Your task to perform on an android device: open app "Google Home" Image 0: 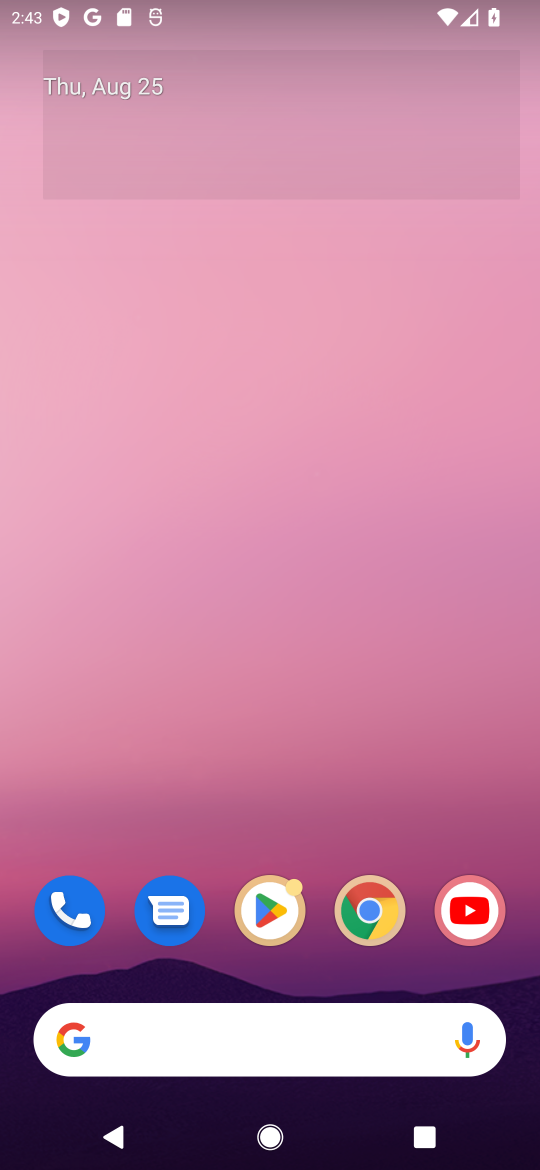
Step 0: drag from (159, 512) to (158, 82)
Your task to perform on an android device: open app "Google Home" Image 1: 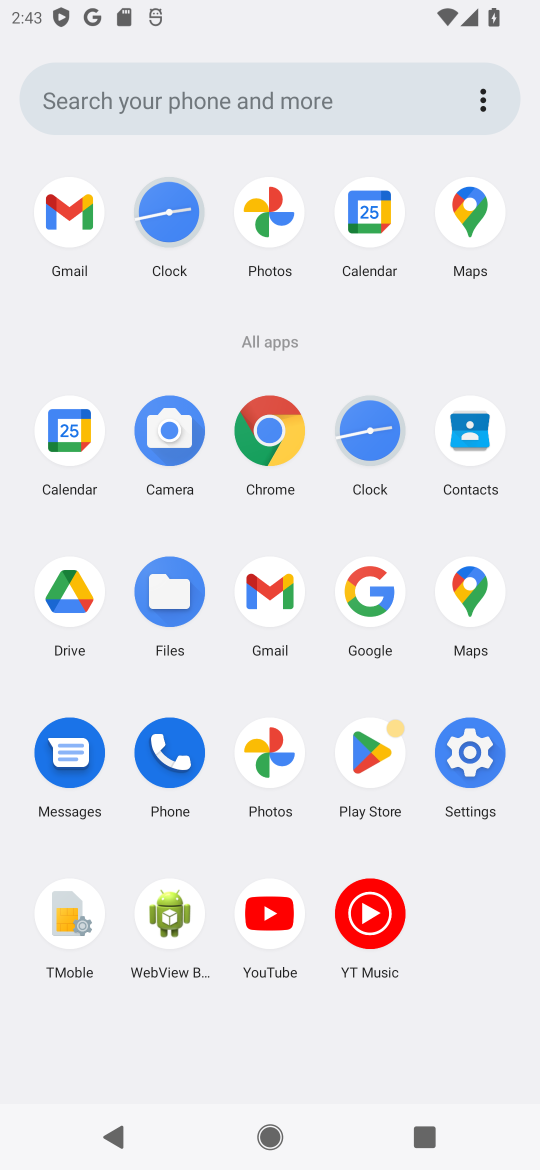
Step 1: click (383, 776)
Your task to perform on an android device: open app "Google Home" Image 2: 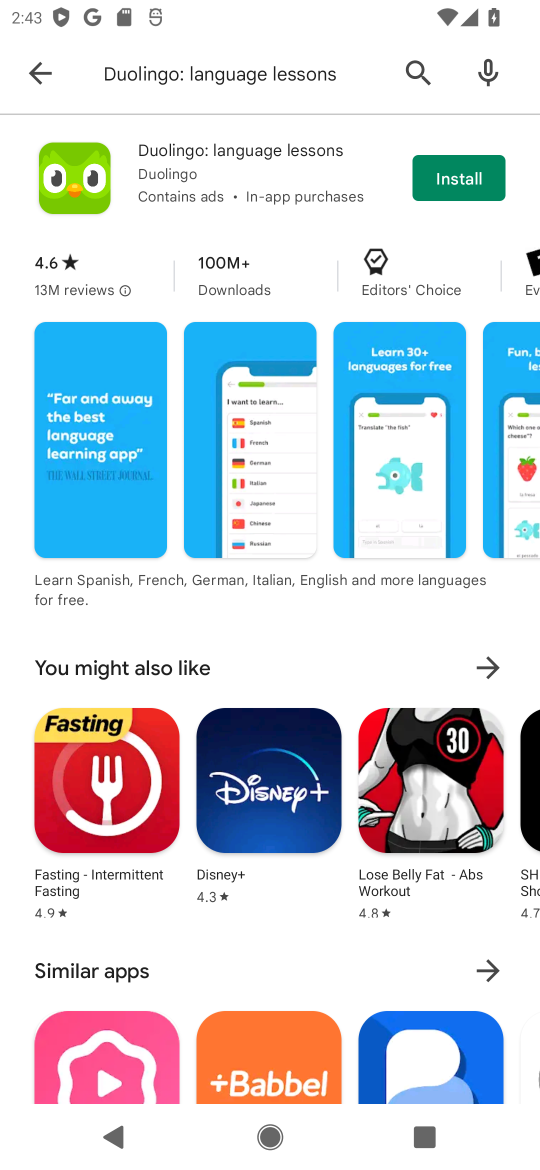
Step 2: press back button
Your task to perform on an android device: open app "Google Home" Image 3: 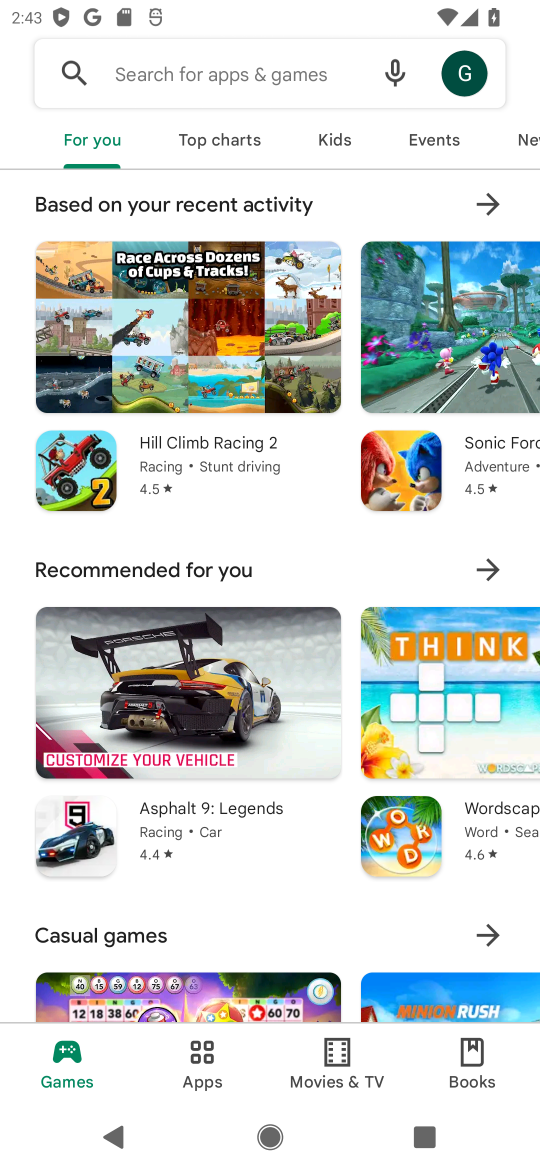
Step 3: click (138, 83)
Your task to perform on an android device: open app "Google Home" Image 4: 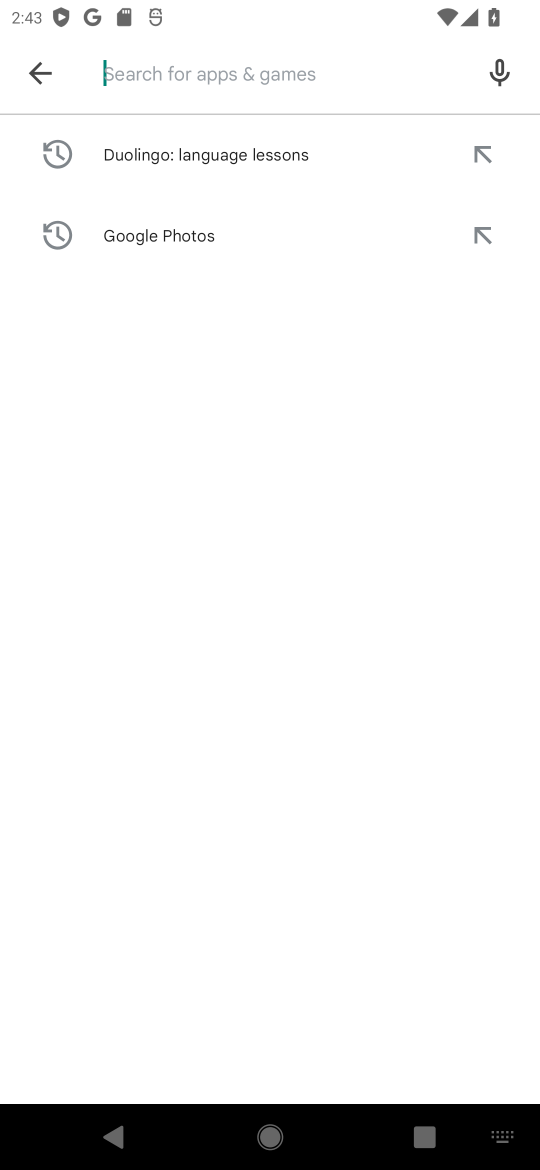
Step 4: type "Google Home"
Your task to perform on an android device: open app "Google Home" Image 5: 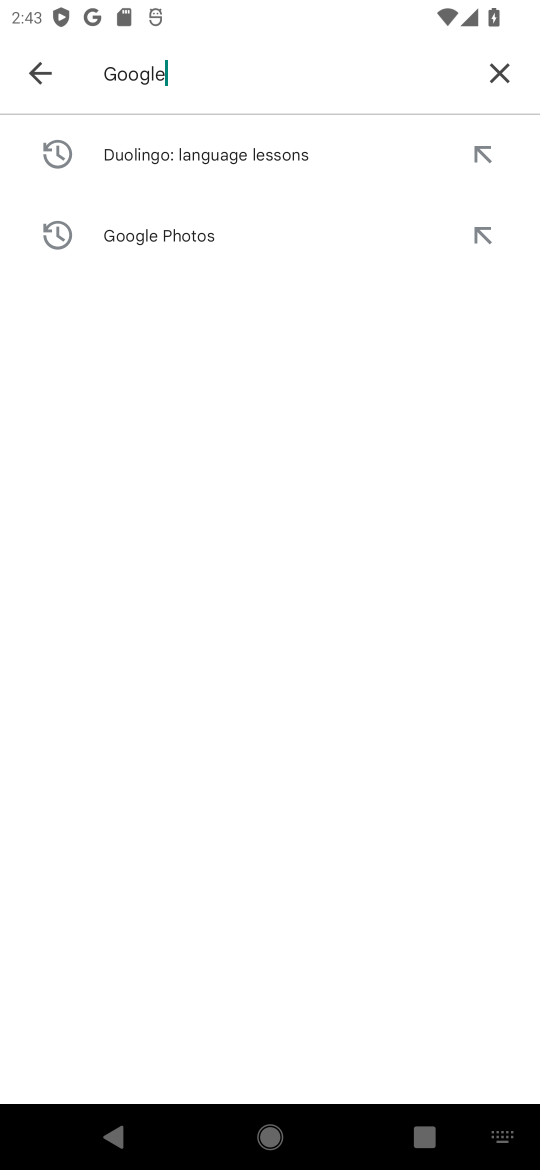
Step 5: press enter
Your task to perform on an android device: open app "Google Home" Image 6: 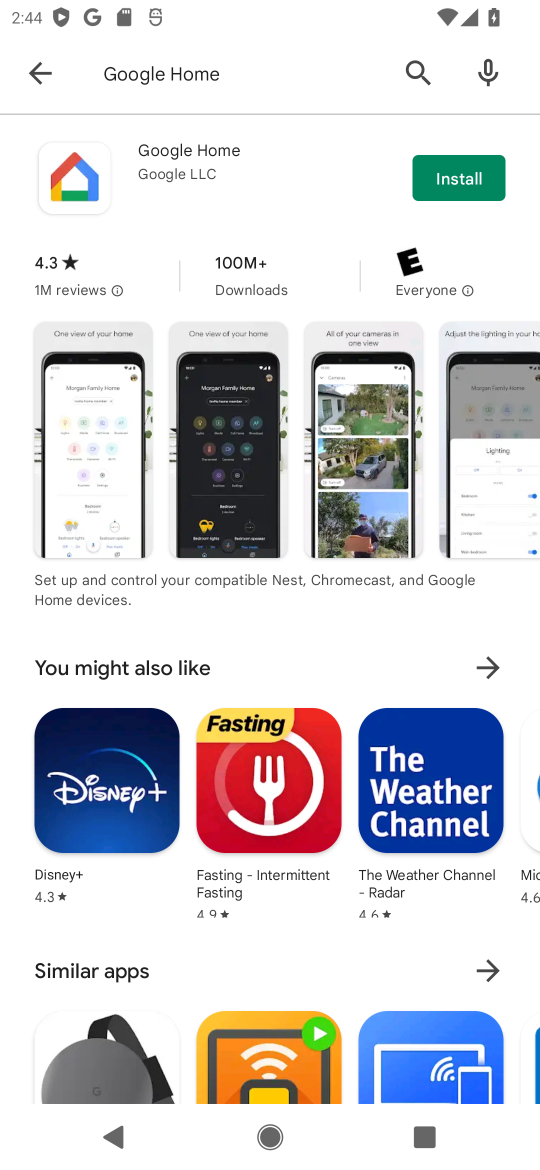
Step 6: task complete